Your task to perform on an android device: open app "Fetch Rewards" (install if not already installed) Image 0: 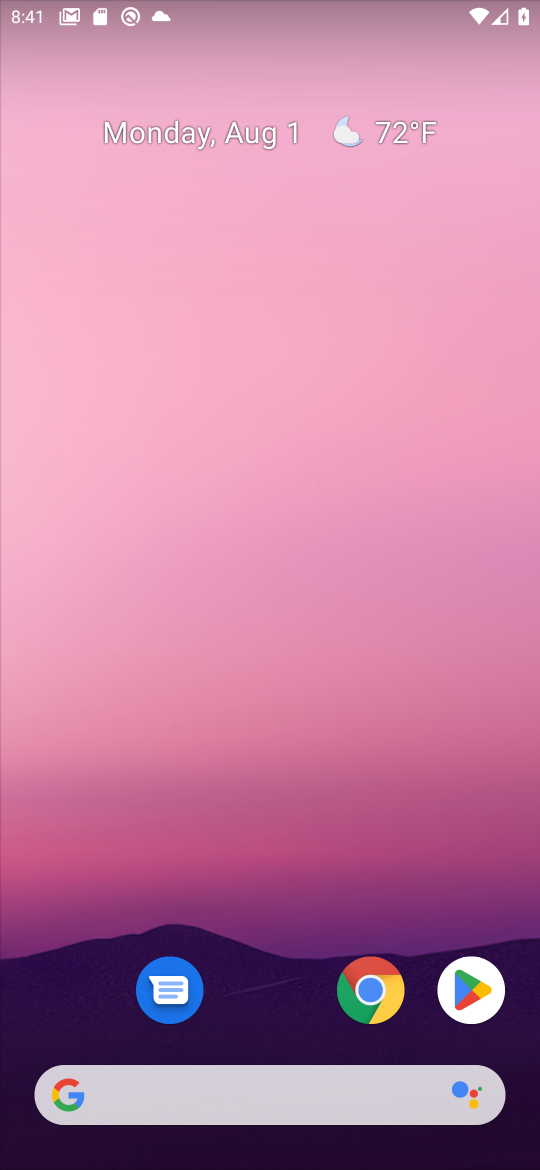
Step 0: click (474, 988)
Your task to perform on an android device: open app "Fetch Rewards" (install if not already installed) Image 1: 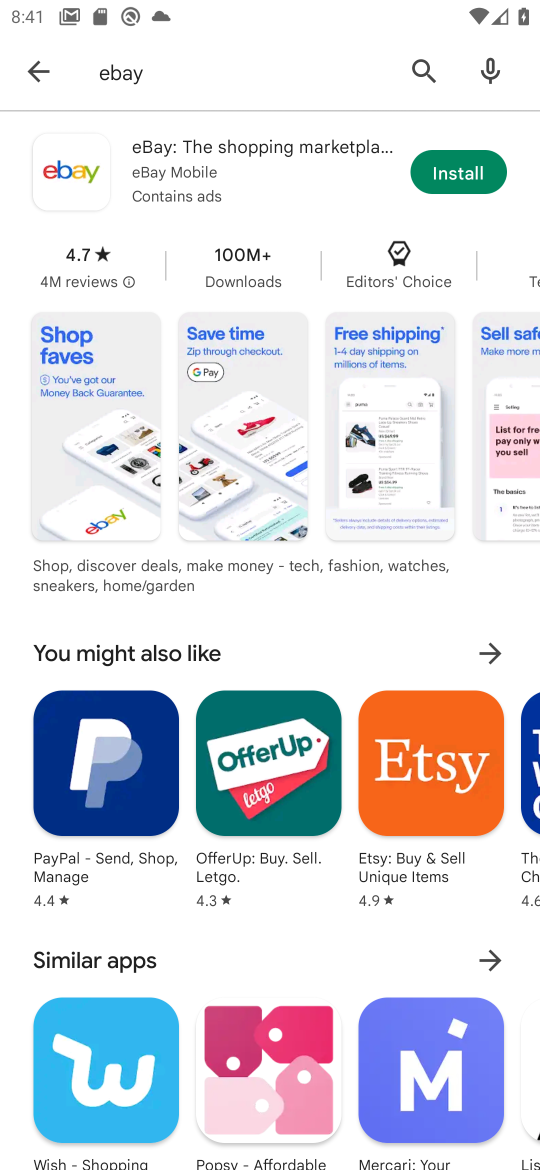
Step 1: click (420, 58)
Your task to perform on an android device: open app "Fetch Rewards" (install if not already installed) Image 2: 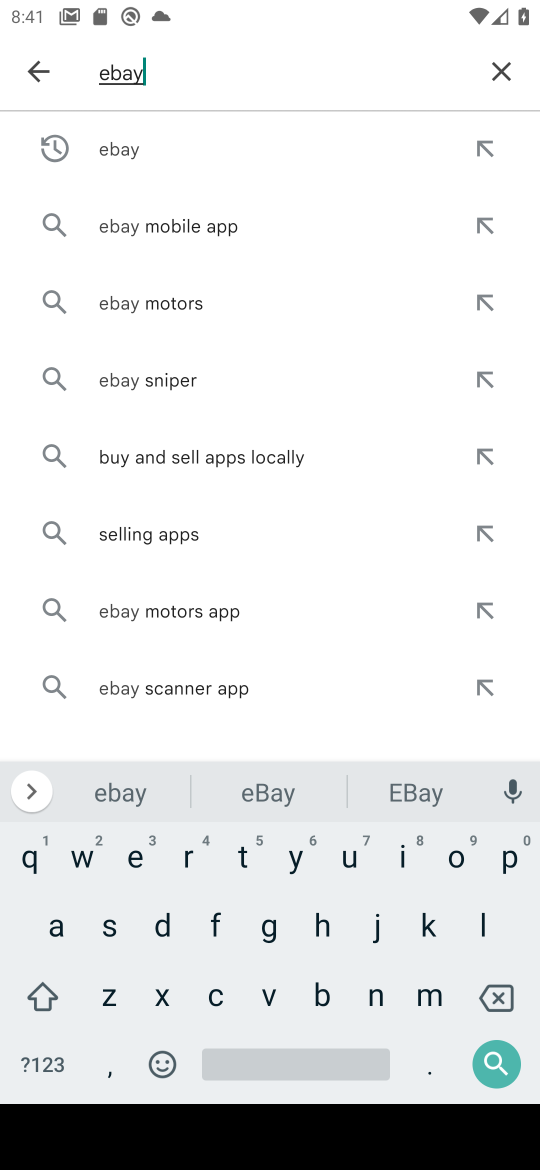
Step 2: click (498, 67)
Your task to perform on an android device: open app "Fetch Rewards" (install if not already installed) Image 3: 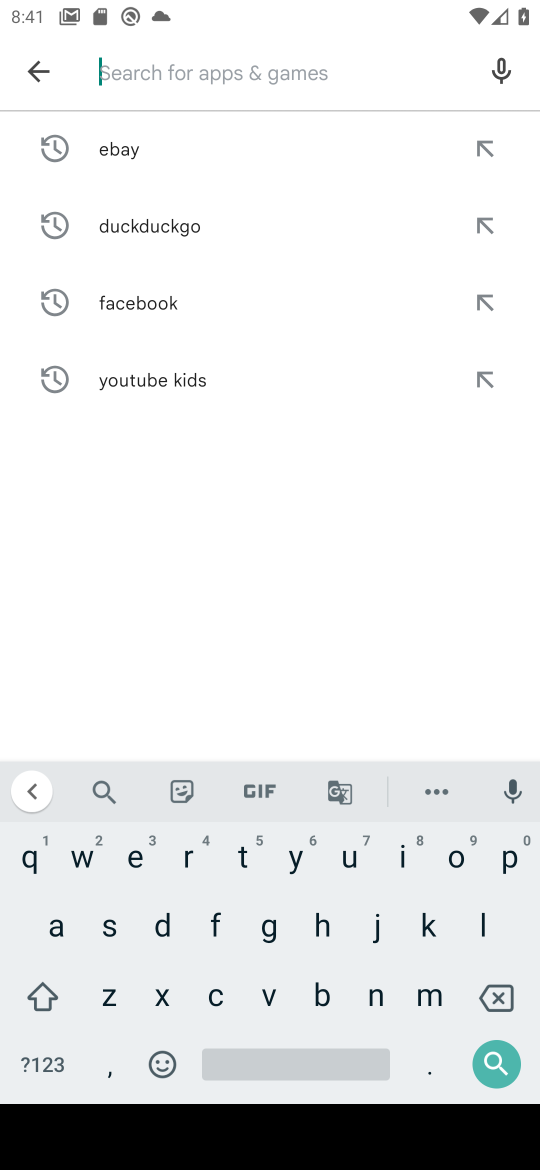
Step 3: click (207, 926)
Your task to perform on an android device: open app "Fetch Rewards" (install if not already installed) Image 4: 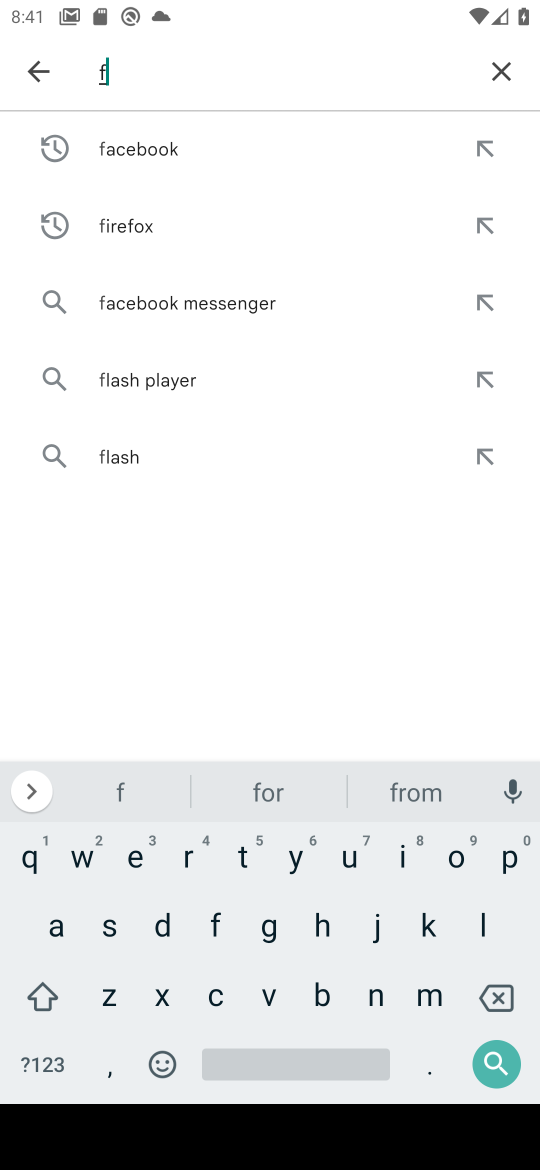
Step 4: click (133, 851)
Your task to perform on an android device: open app "Fetch Rewards" (install if not already installed) Image 5: 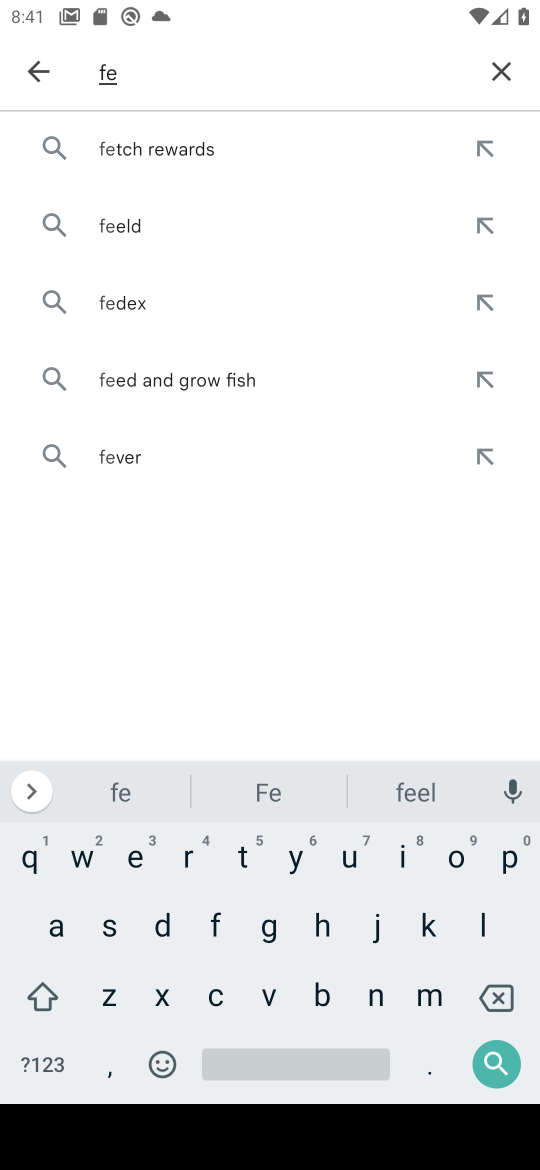
Step 5: click (235, 854)
Your task to perform on an android device: open app "Fetch Rewards" (install if not already installed) Image 6: 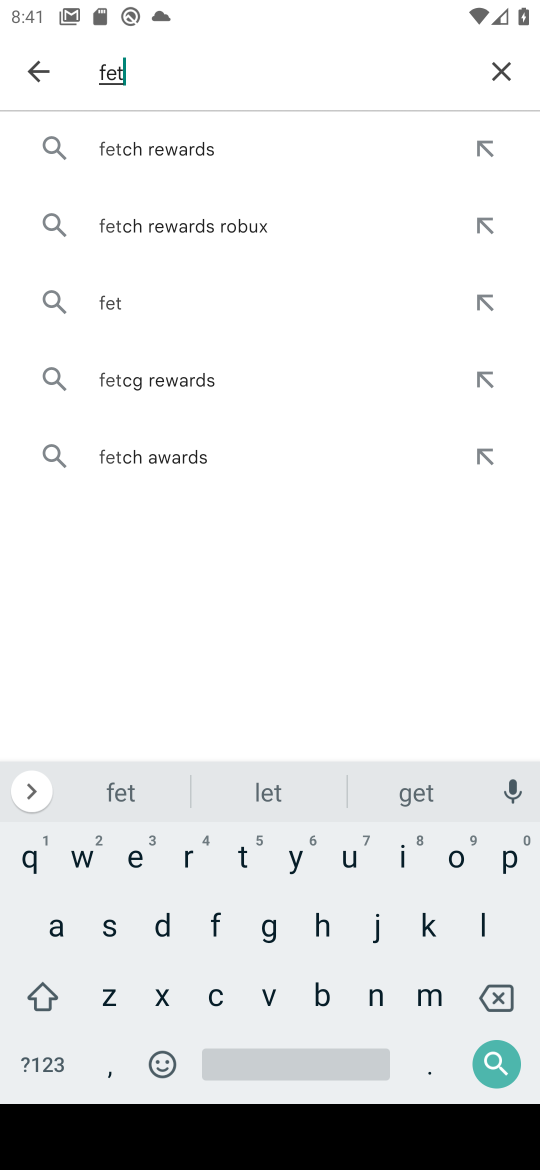
Step 6: click (134, 137)
Your task to perform on an android device: open app "Fetch Rewards" (install if not already installed) Image 7: 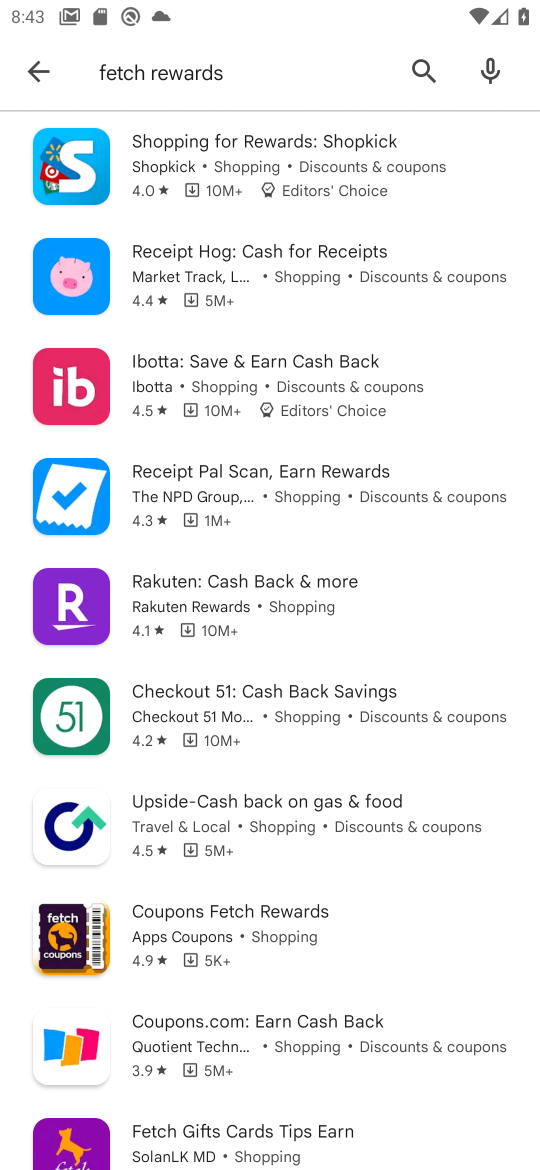
Step 7: task complete